Your task to perform on an android device: see tabs open on other devices in the chrome app Image 0: 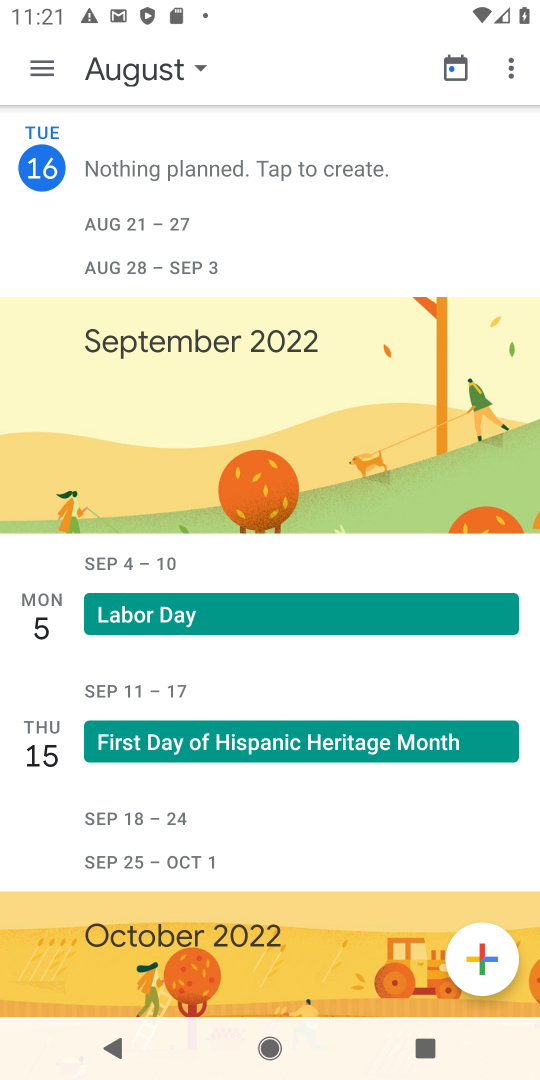
Step 0: press home button
Your task to perform on an android device: see tabs open on other devices in the chrome app Image 1: 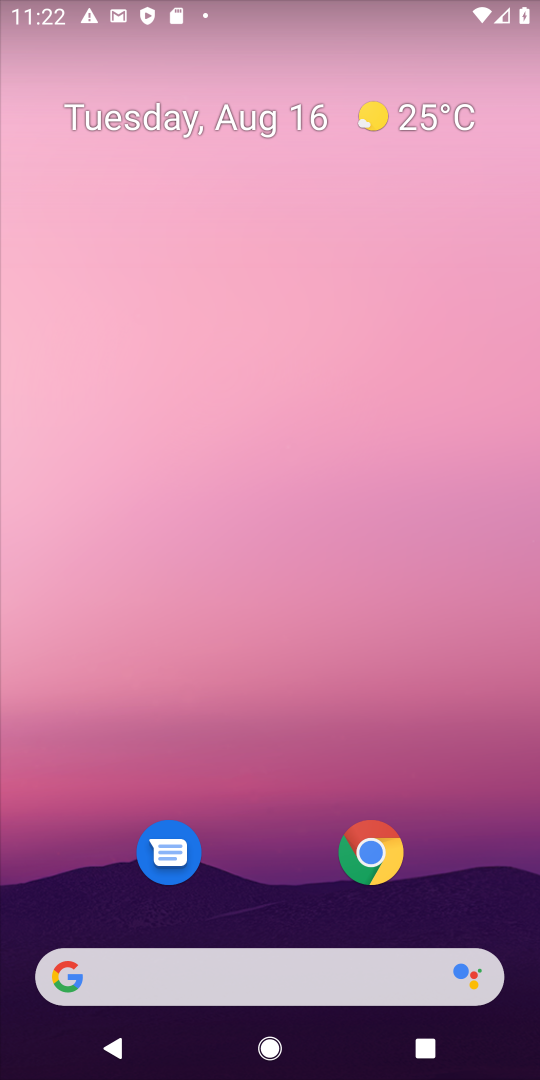
Step 1: task complete